Your task to perform on an android device: turn on wifi Image 0: 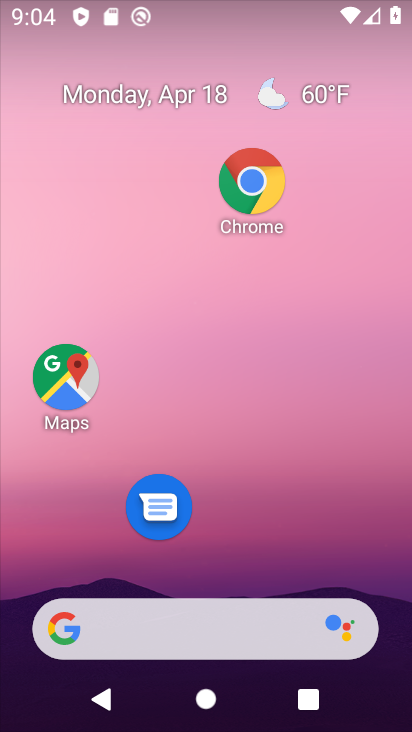
Step 0: drag from (146, 603) to (88, 9)
Your task to perform on an android device: turn on wifi Image 1: 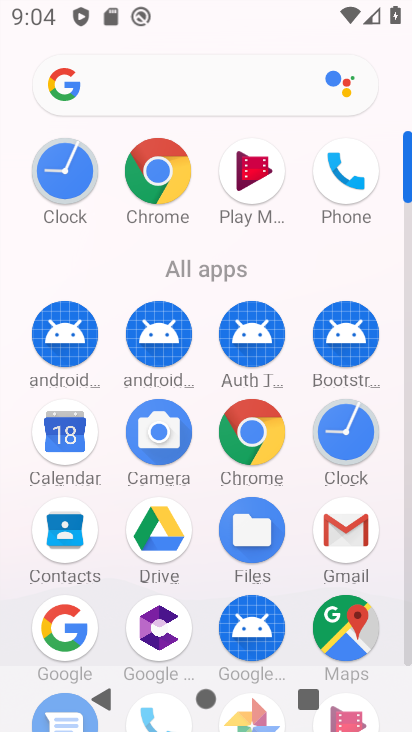
Step 1: drag from (293, 587) to (233, 82)
Your task to perform on an android device: turn on wifi Image 2: 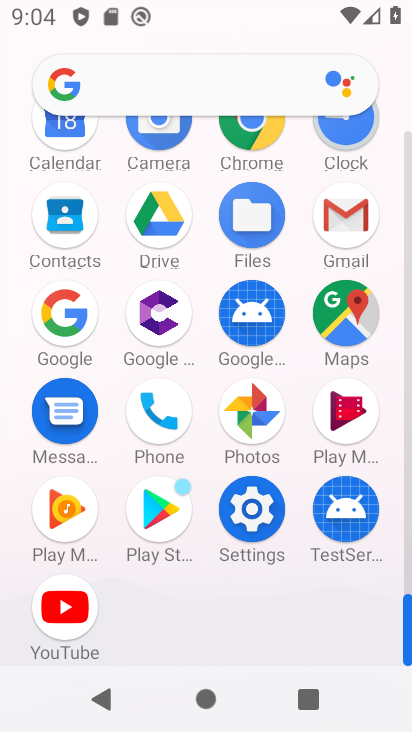
Step 2: click (252, 549)
Your task to perform on an android device: turn on wifi Image 3: 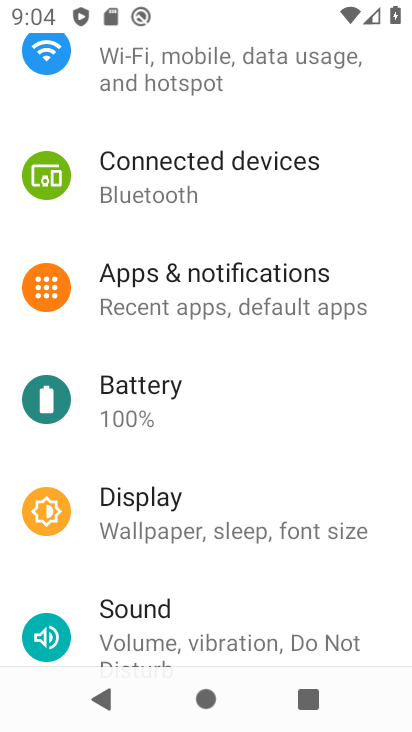
Step 3: drag from (173, 157) to (186, 504)
Your task to perform on an android device: turn on wifi Image 4: 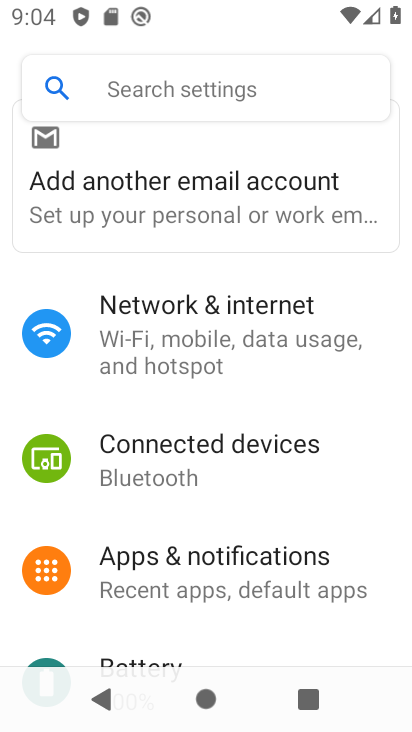
Step 4: click (212, 333)
Your task to perform on an android device: turn on wifi Image 5: 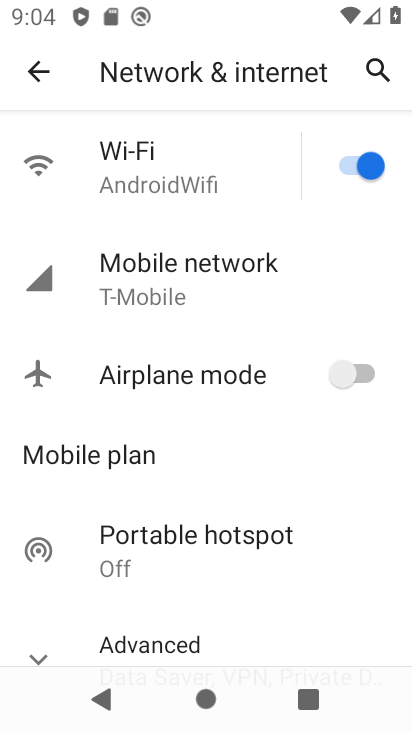
Step 5: task complete